Your task to perform on an android device: install app "Pandora - Music & Podcasts" Image 0: 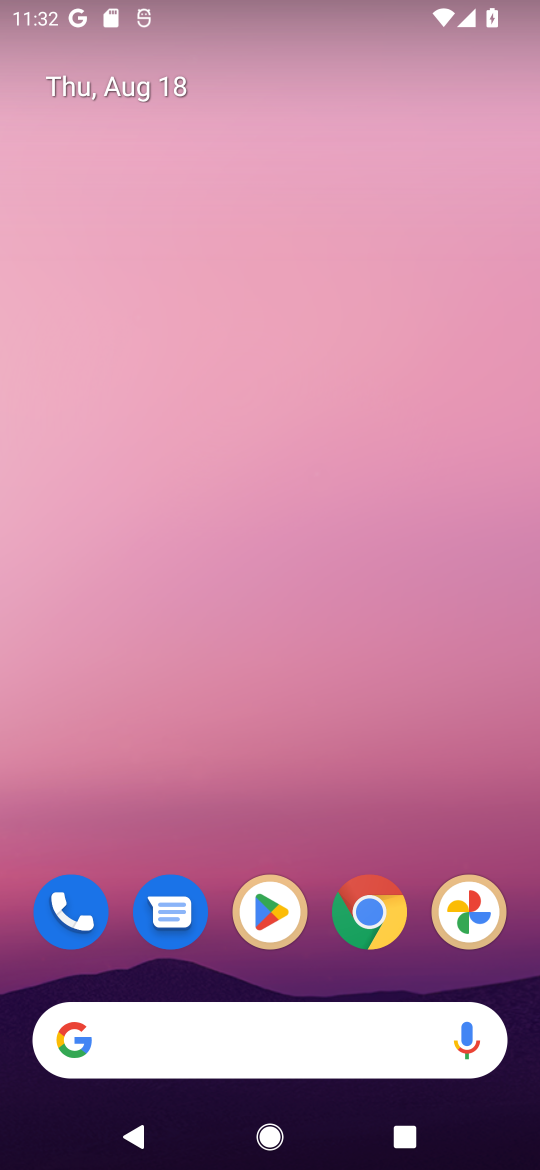
Step 0: click (280, 912)
Your task to perform on an android device: install app "Pandora - Music & Podcasts" Image 1: 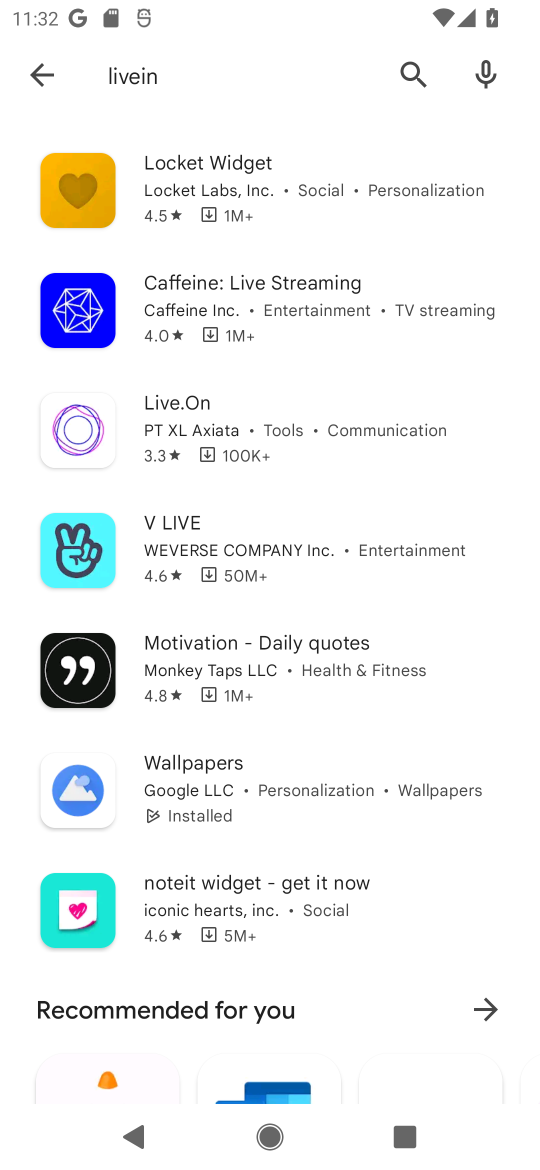
Step 1: click (420, 70)
Your task to perform on an android device: install app "Pandora - Music & Podcasts" Image 2: 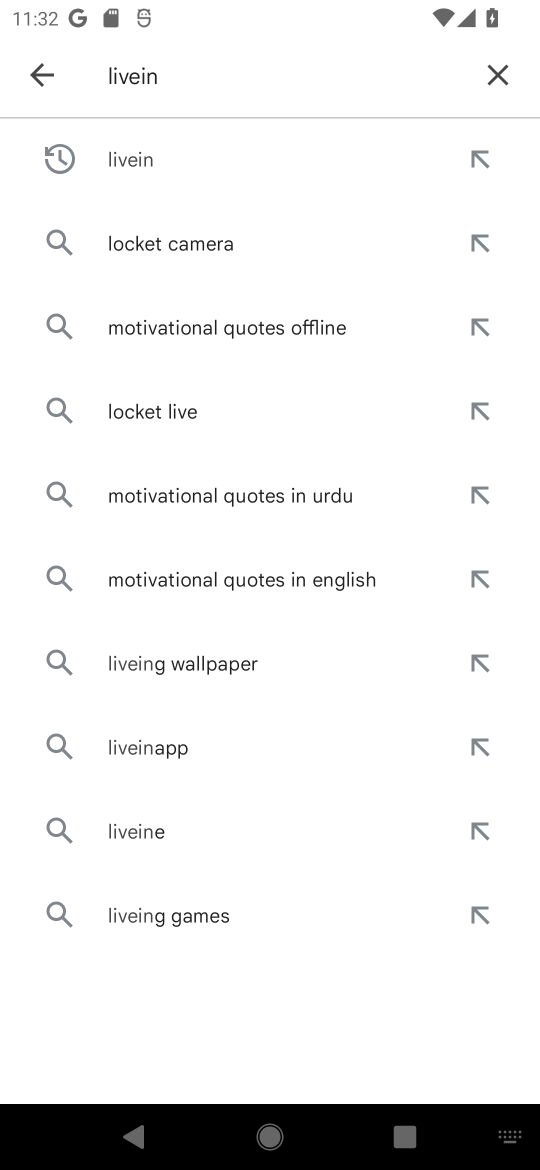
Step 2: click (504, 69)
Your task to perform on an android device: install app "Pandora - Music & Podcasts" Image 3: 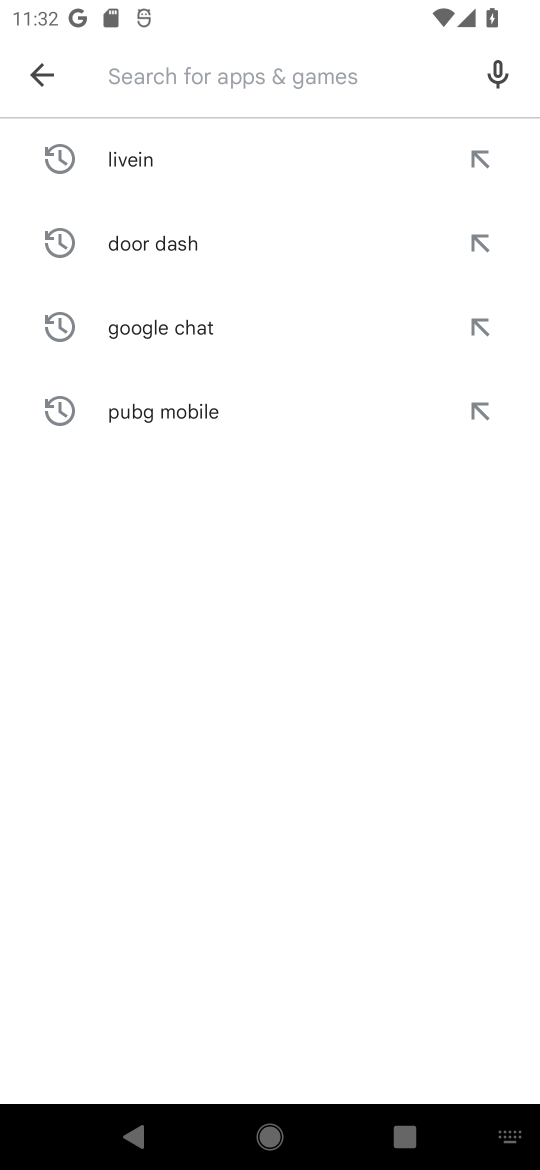
Step 3: click (252, 90)
Your task to perform on an android device: install app "Pandora - Music & Podcasts" Image 4: 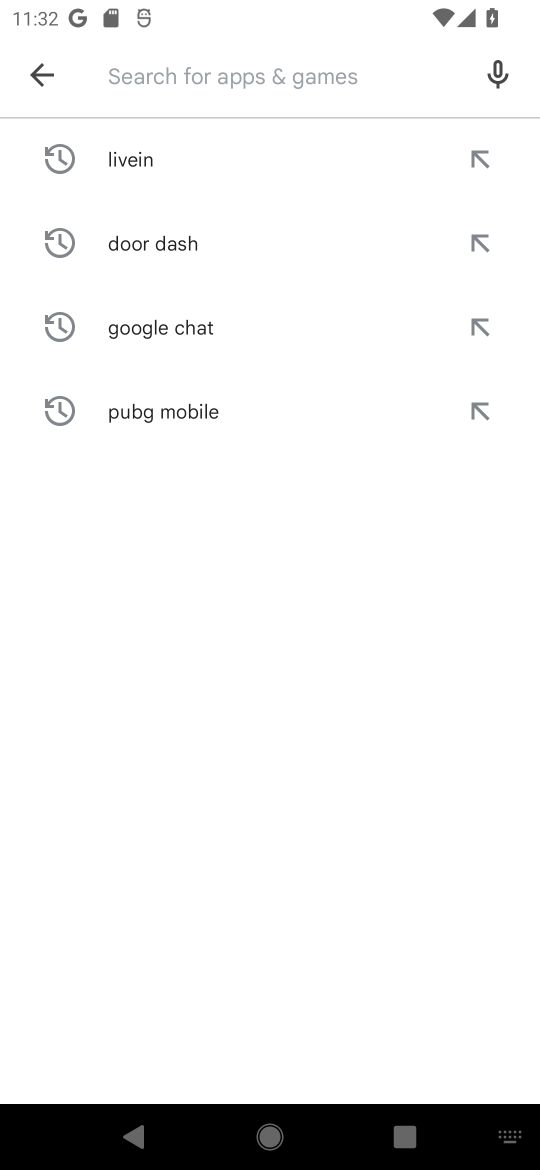
Step 4: type "pandora"
Your task to perform on an android device: install app "Pandora - Music & Podcasts" Image 5: 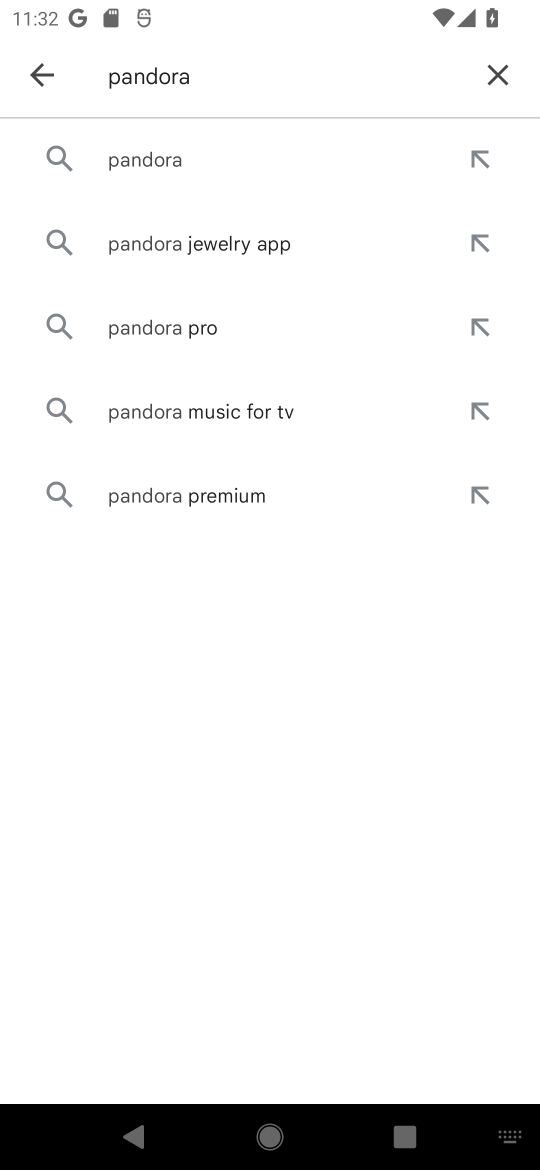
Step 5: click (166, 155)
Your task to perform on an android device: install app "Pandora - Music & Podcasts" Image 6: 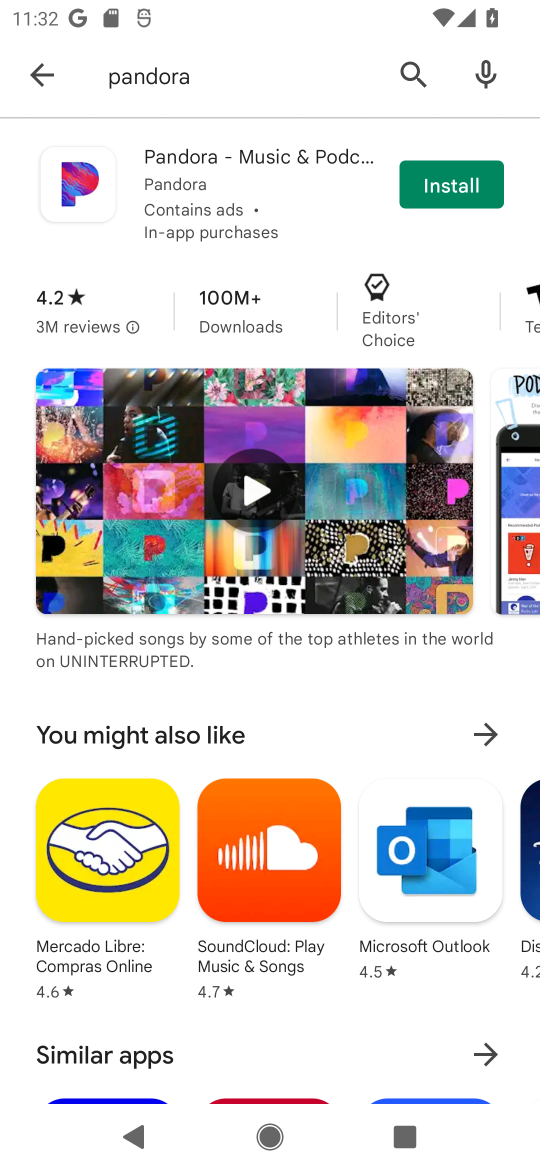
Step 6: click (443, 189)
Your task to perform on an android device: install app "Pandora - Music & Podcasts" Image 7: 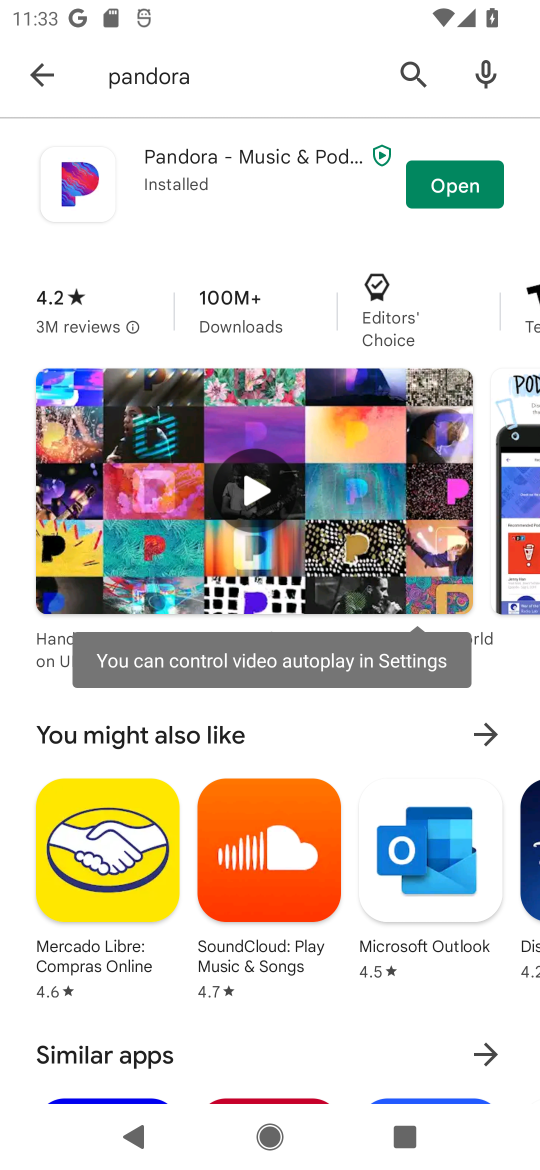
Step 7: click (486, 185)
Your task to perform on an android device: install app "Pandora - Music & Podcasts" Image 8: 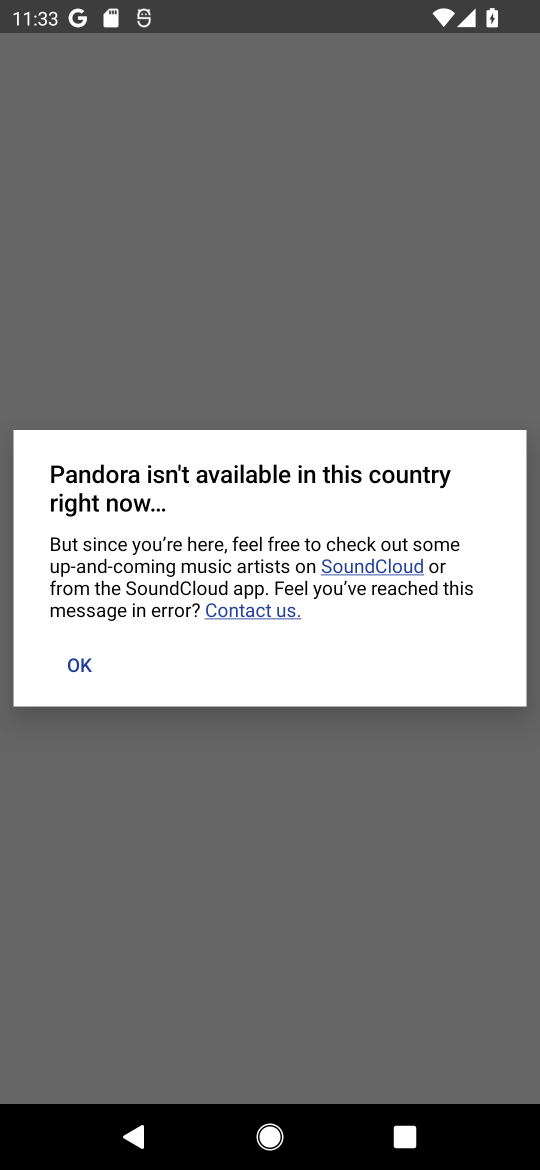
Step 8: click (97, 656)
Your task to perform on an android device: install app "Pandora - Music & Podcasts" Image 9: 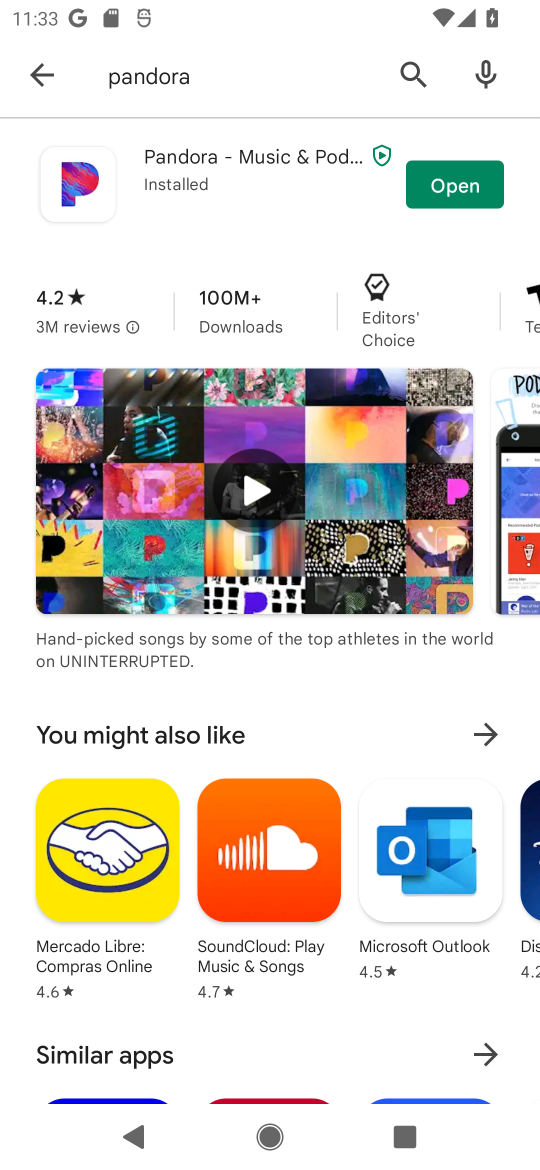
Step 9: task complete